Your task to perform on an android device: Open calendar and show me the third week of next month Image 0: 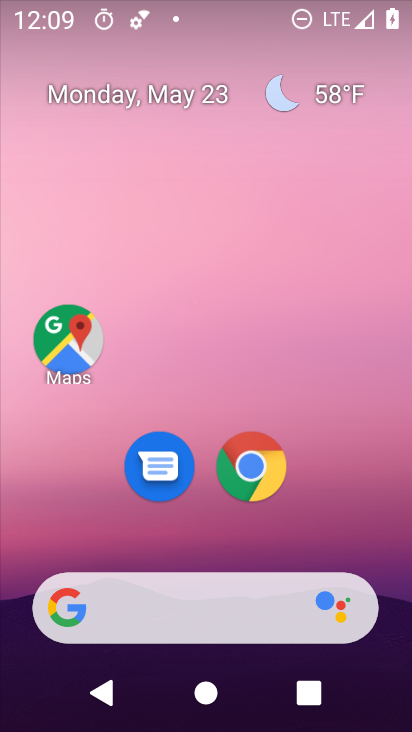
Step 0: drag from (208, 523) to (193, 75)
Your task to perform on an android device: Open calendar and show me the third week of next month Image 1: 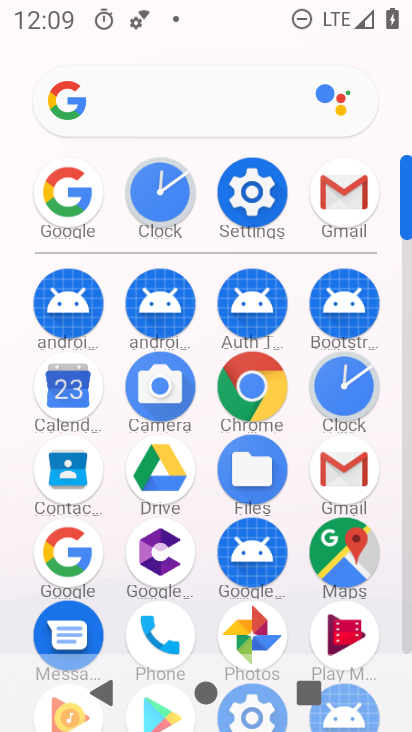
Step 1: click (67, 394)
Your task to perform on an android device: Open calendar and show me the third week of next month Image 2: 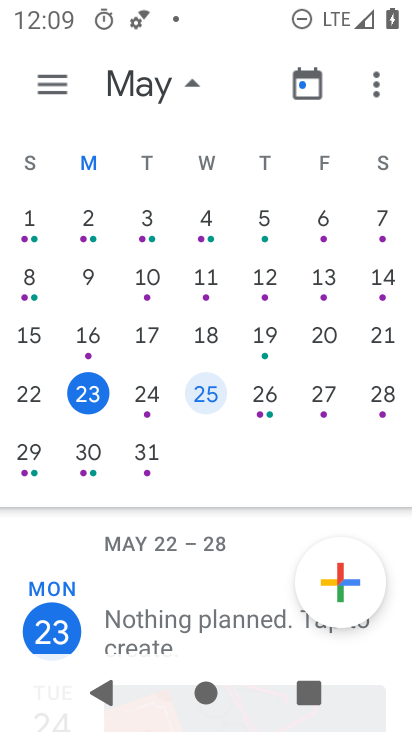
Step 2: drag from (388, 468) to (5, 428)
Your task to perform on an android device: Open calendar and show me the third week of next month Image 3: 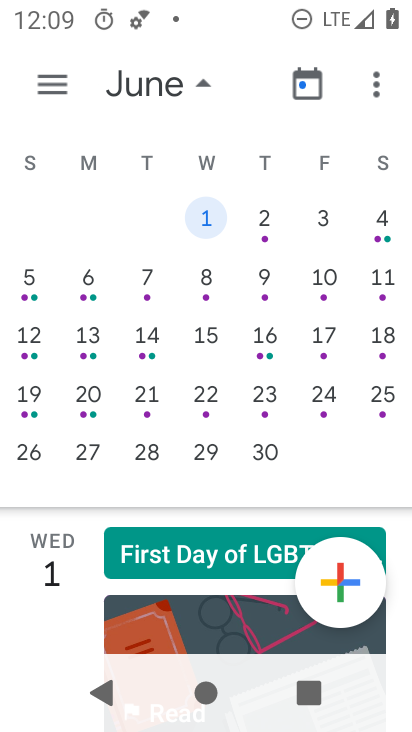
Step 3: click (206, 328)
Your task to perform on an android device: Open calendar and show me the third week of next month Image 4: 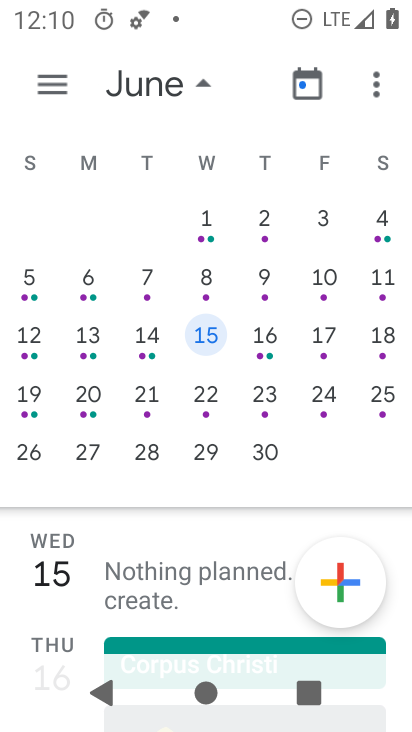
Step 4: task complete